Your task to perform on an android device: turn on the 12-hour format for clock Image 0: 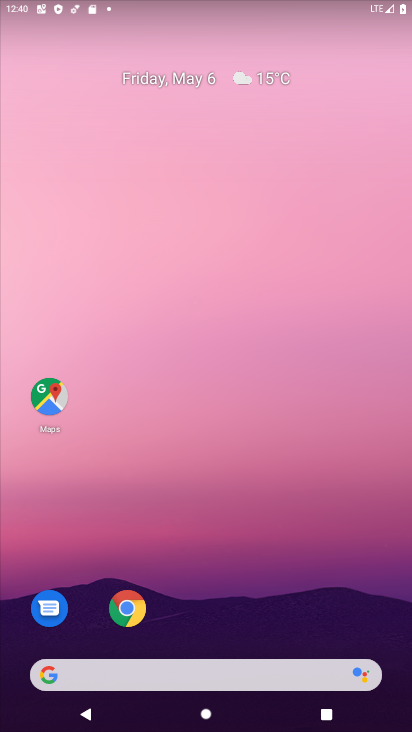
Step 0: drag from (225, 613) to (258, 278)
Your task to perform on an android device: turn on the 12-hour format for clock Image 1: 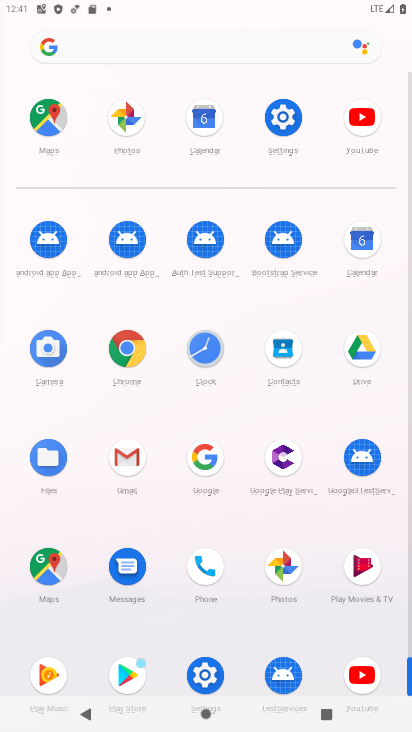
Step 1: drag from (232, 664) to (233, 267)
Your task to perform on an android device: turn on the 12-hour format for clock Image 2: 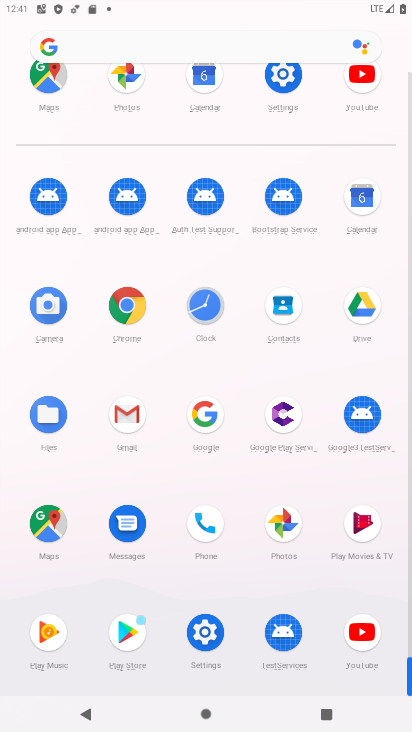
Step 2: click (208, 314)
Your task to perform on an android device: turn on the 12-hour format for clock Image 3: 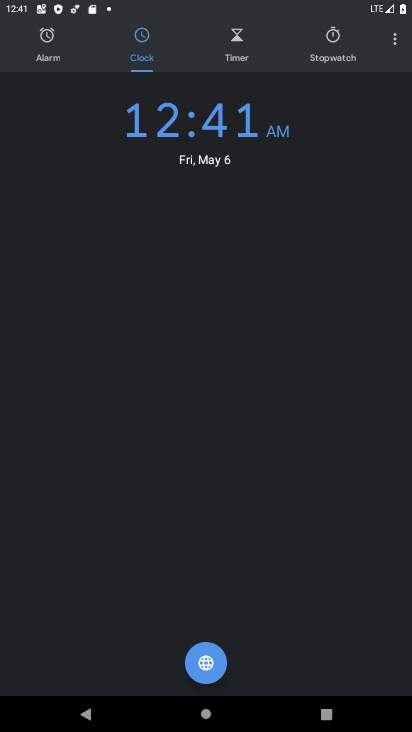
Step 3: drag from (395, 42) to (318, 84)
Your task to perform on an android device: turn on the 12-hour format for clock Image 4: 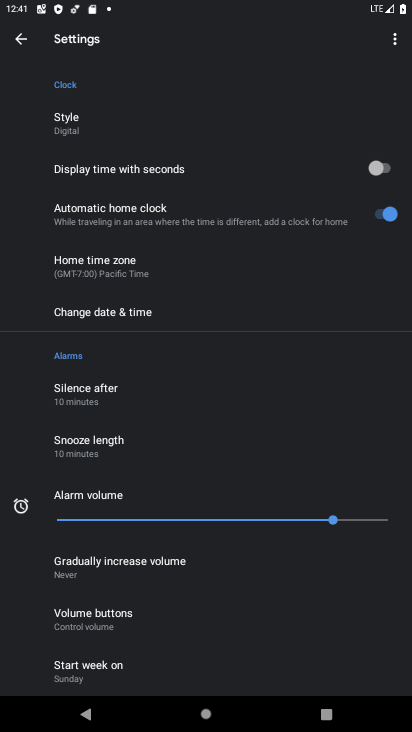
Step 4: click (113, 305)
Your task to perform on an android device: turn on the 12-hour format for clock Image 5: 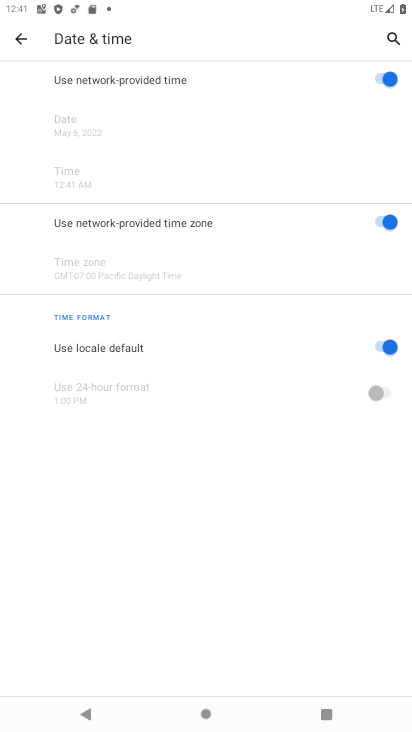
Step 5: task complete